Your task to perform on an android device: Turn on the flashlight Image 0: 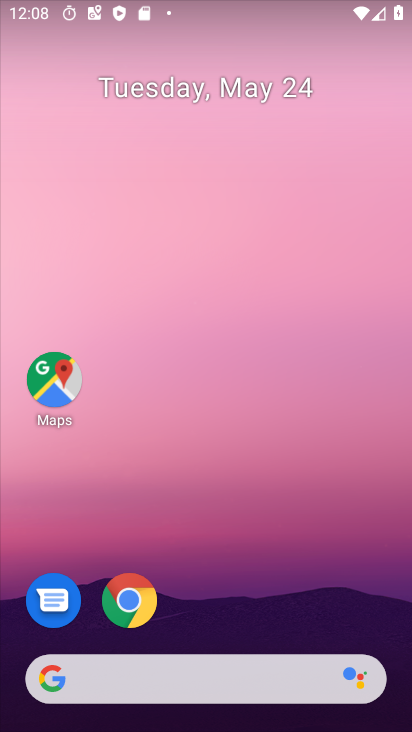
Step 0: drag from (282, 504) to (271, 152)
Your task to perform on an android device: Turn on the flashlight Image 1: 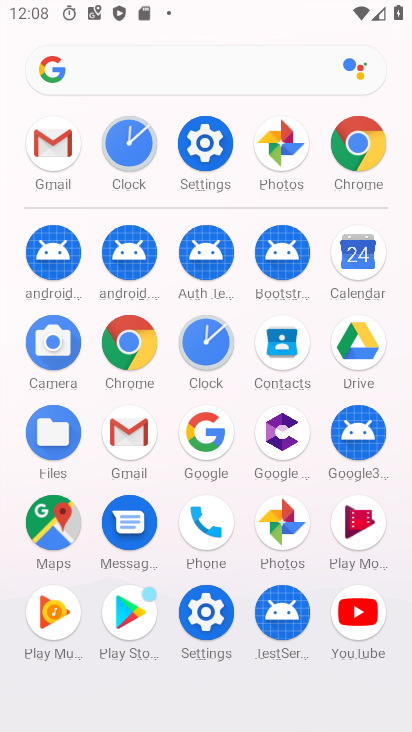
Step 1: click (221, 147)
Your task to perform on an android device: Turn on the flashlight Image 2: 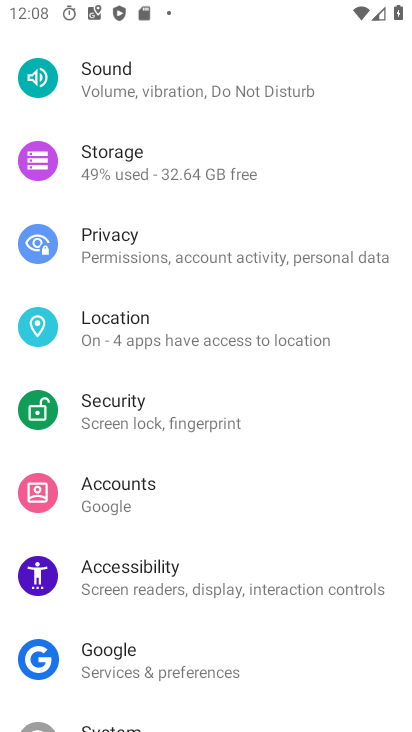
Step 2: drag from (173, 281) to (166, 523)
Your task to perform on an android device: Turn on the flashlight Image 3: 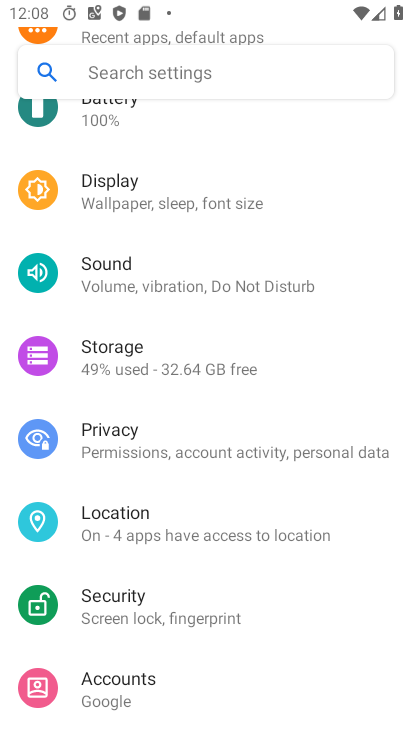
Step 3: click (180, 190)
Your task to perform on an android device: Turn on the flashlight Image 4: 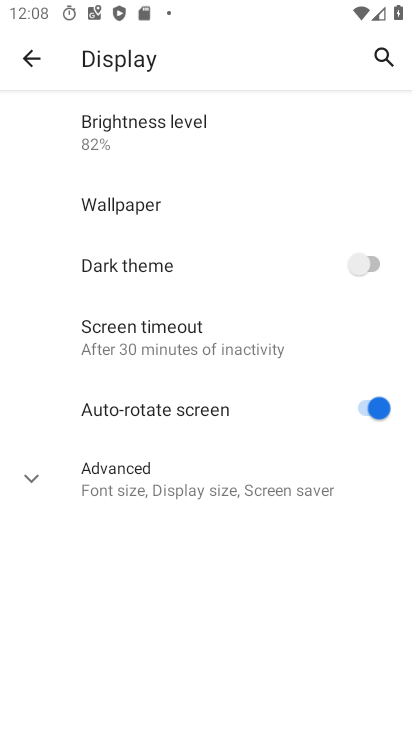
Step 4: task complete